Your task to perform on an android device: clear history in the chrome app Image 0: 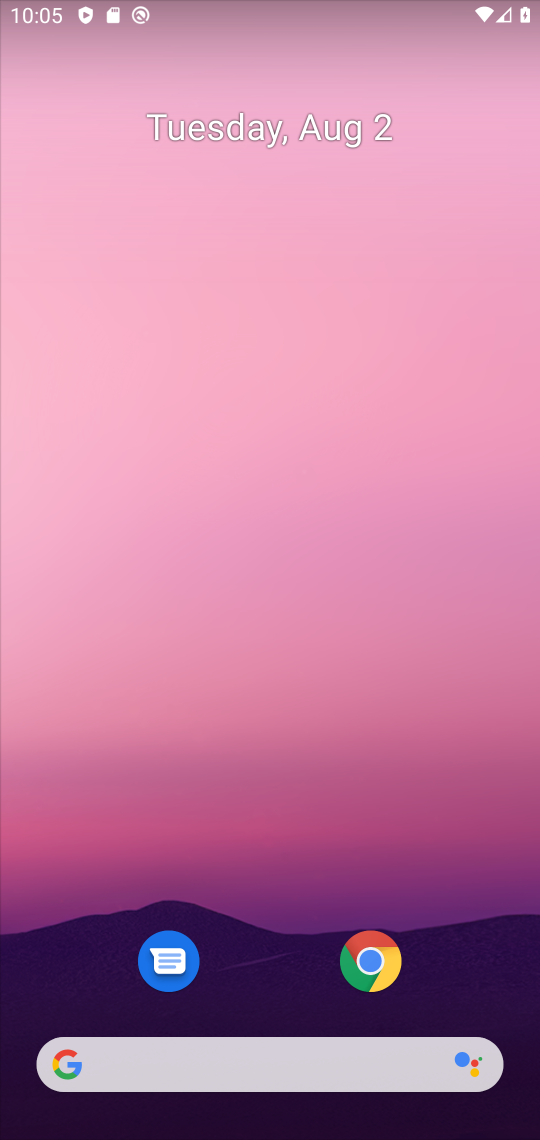
Step 0: click (367, 952)
Your task to perform on an android device: clear history in the chrome app Image 1: 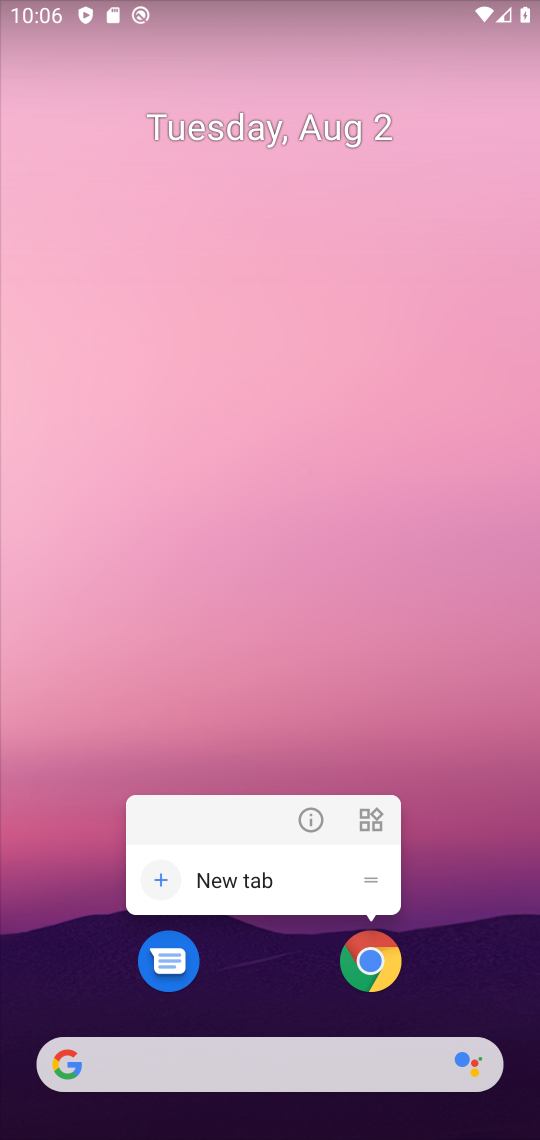
Step 1: click (361, 974)
Your task to perform on an android device: clear history in the chrome app Image 2: 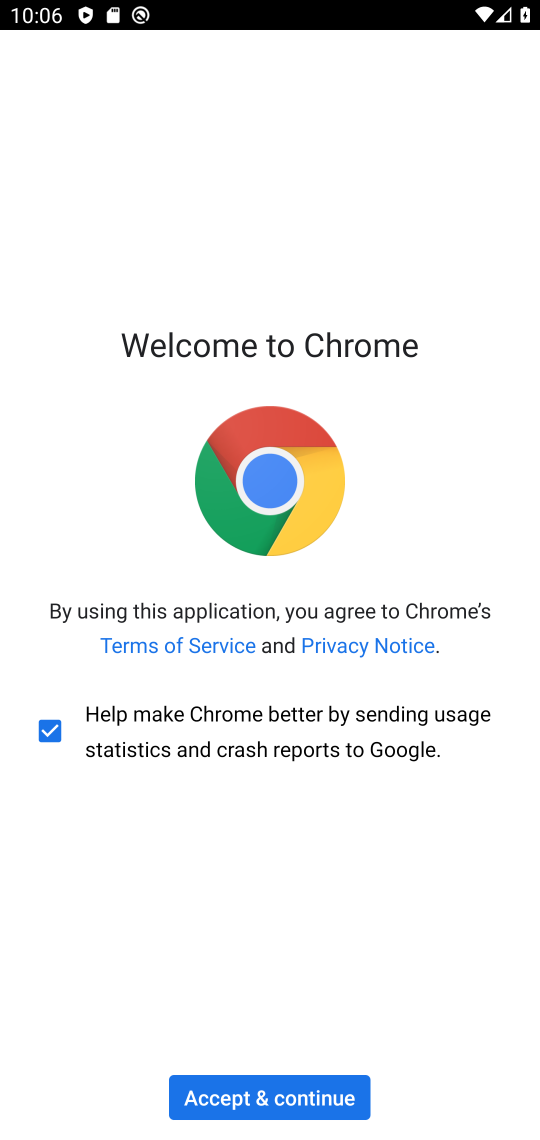
Step 2: click (253, 1086)
Your task to perform on an android device: clear history in the chrome app Image 3: 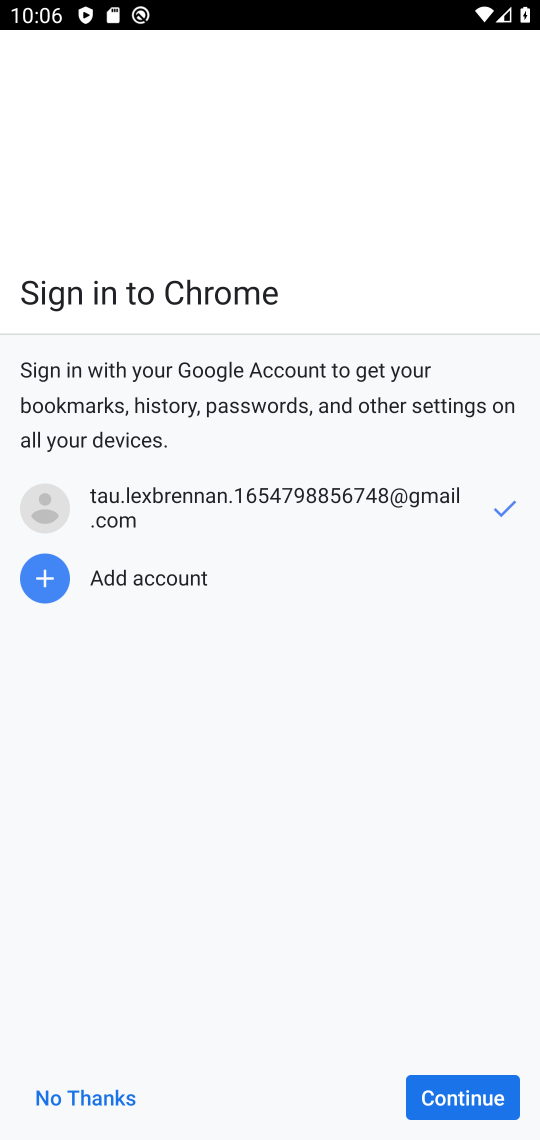
Step 3: click (465, 1090)
Your task to perform on an android device: clear history in the chrome app Image 4: 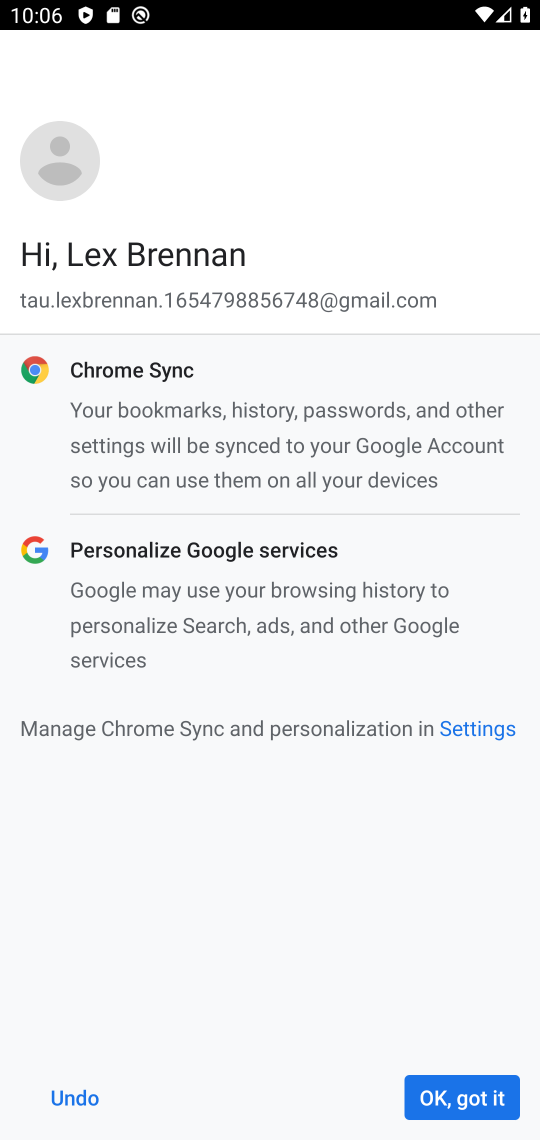
Step 4: click (464, 1085)
Your task to perform on an android device: clear history in the chrome app Image 5: 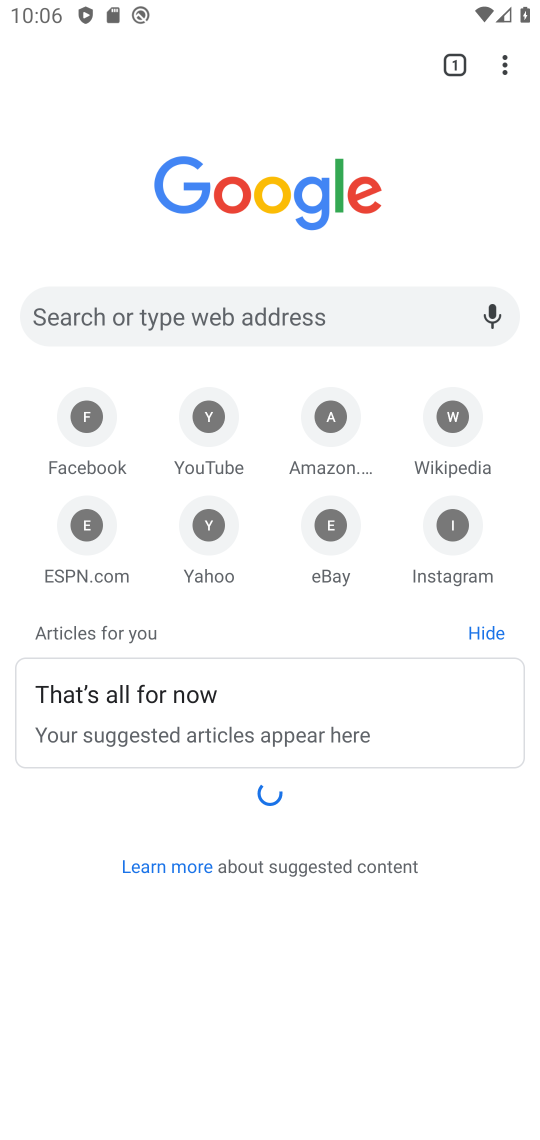
Step 5: click (503, 60)
Your task to perform on an android device: clear history in the chrome app Image 6: 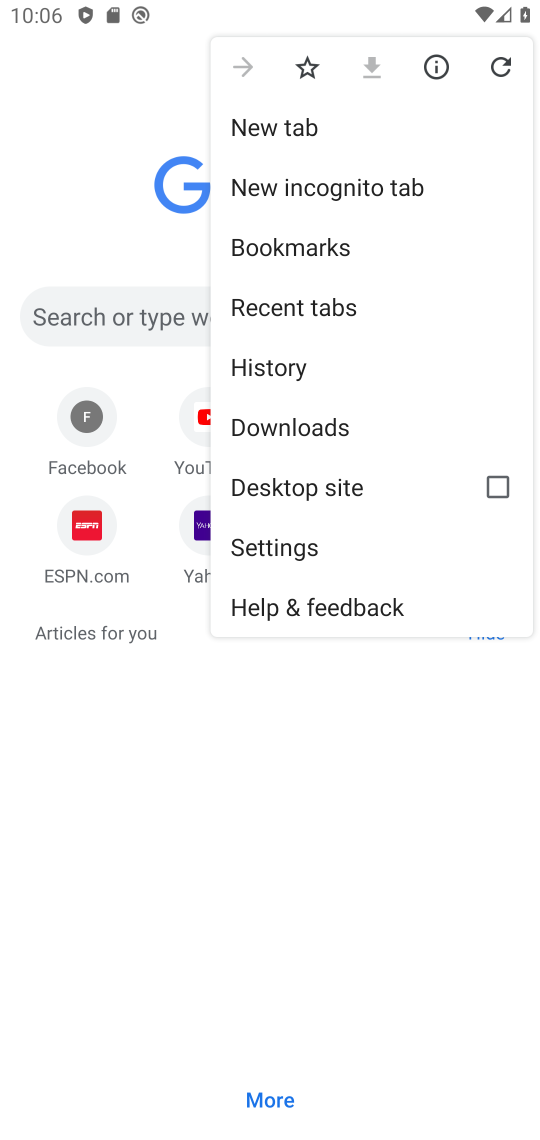
Step 6: click (316, 366)
Your task to perform on an android device: clear history in the chrome app Image 7: 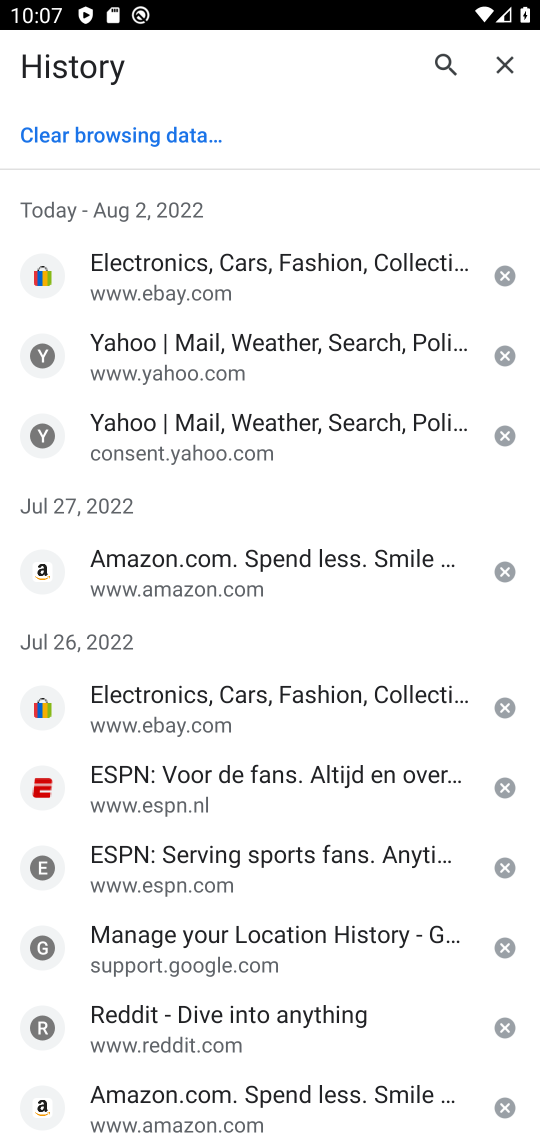
Step 7: click (83, 133)
Your task to perform on an android device: clear history in the chrome app Image 8: 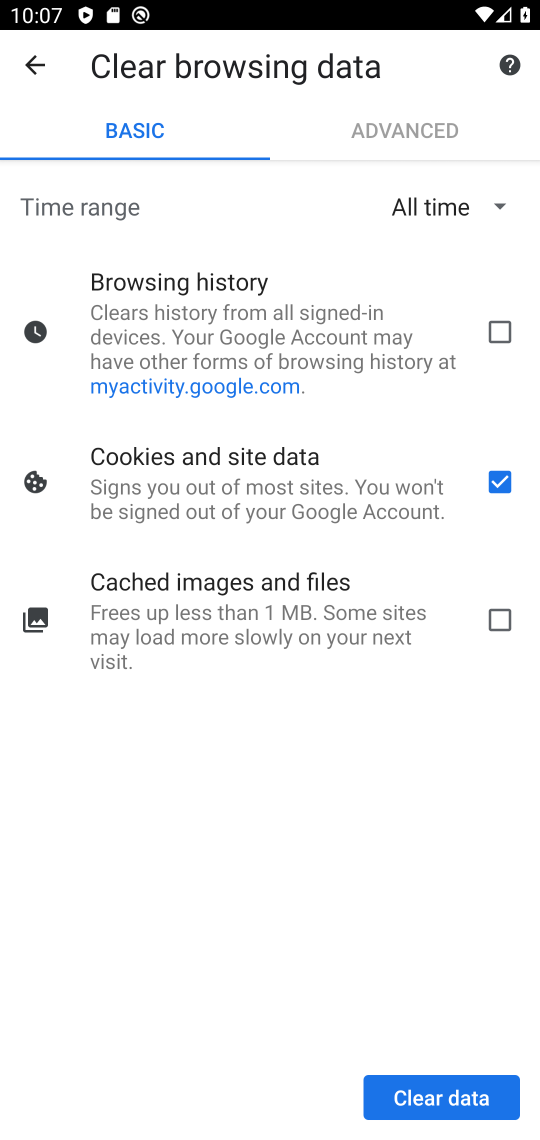
Step 8: click (495, 327)
Your task to perform on an android device: clear history in the chrome app Image 9: 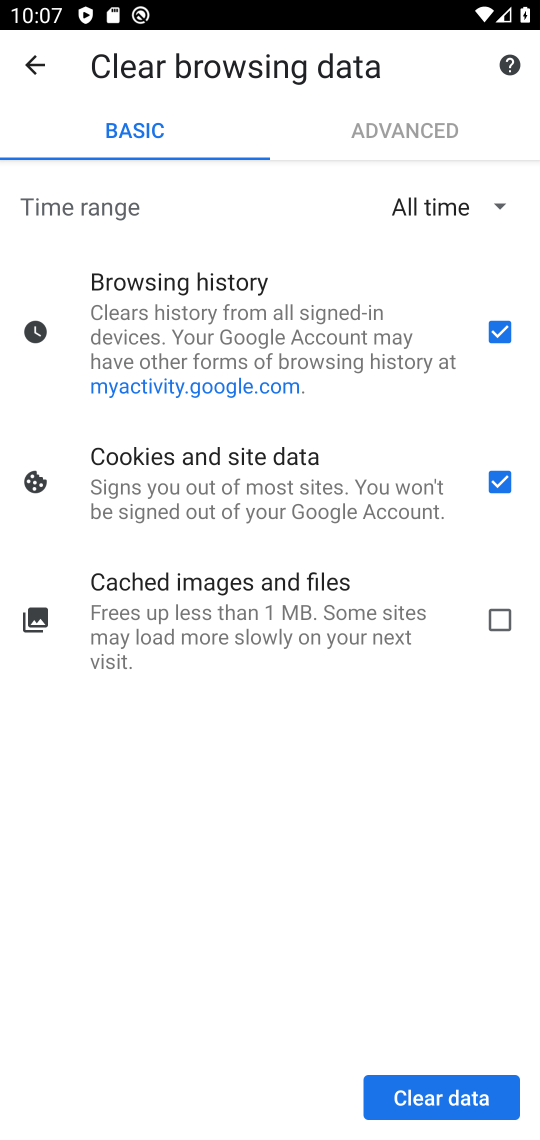
Step 9: click (499, 617)
Your task to perform on an android device: clear history in the chrome app Image 10: 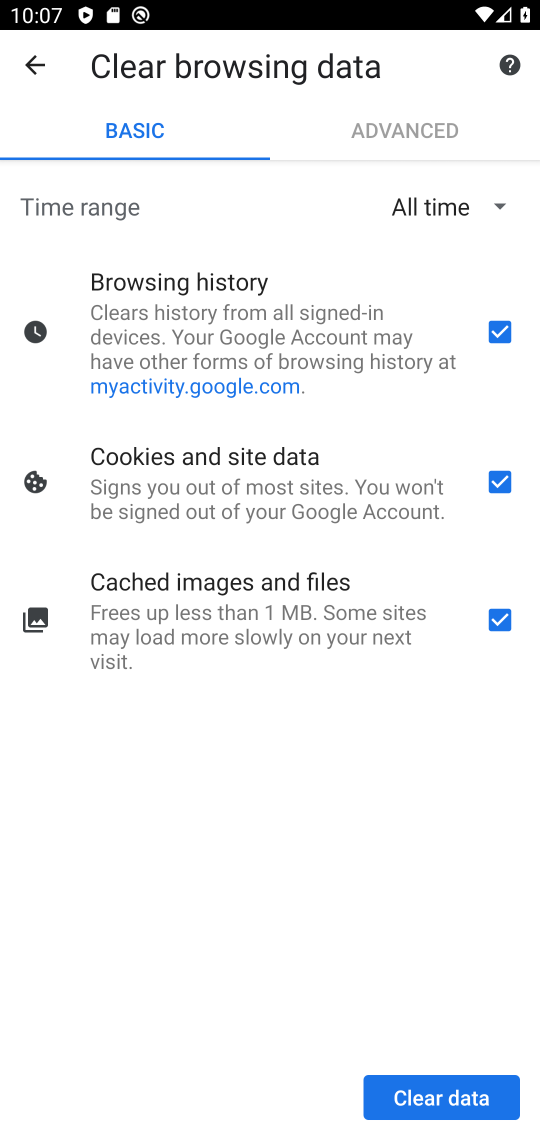
Step 10: click (442, 1092)
Your task to perform on an android device: clear history in the chrome app Image 11: 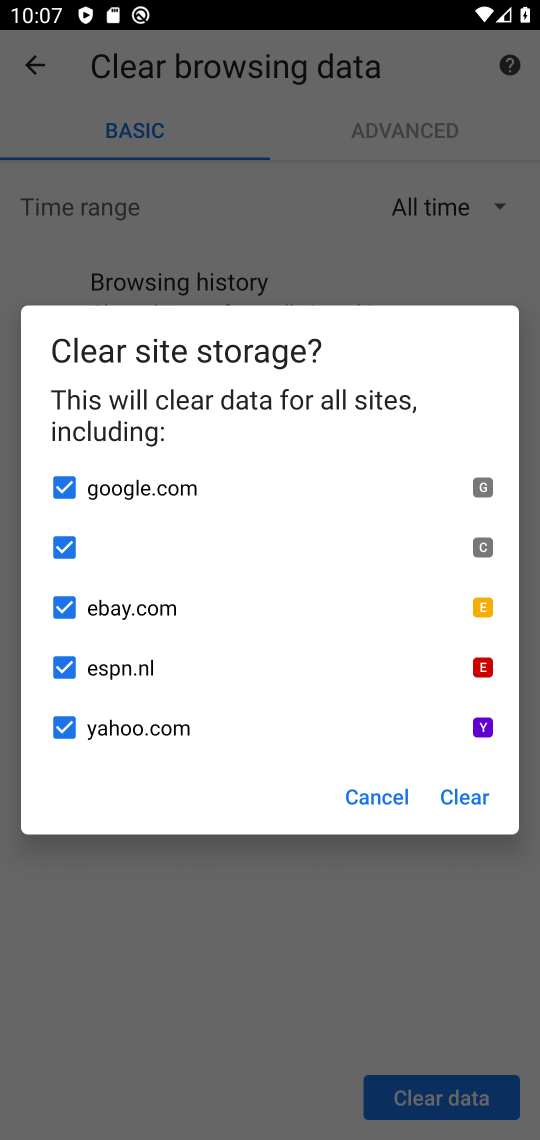
Step 11: click (475, 794)
Your task to perform on an android device: clear history in the chrome app Image 12: 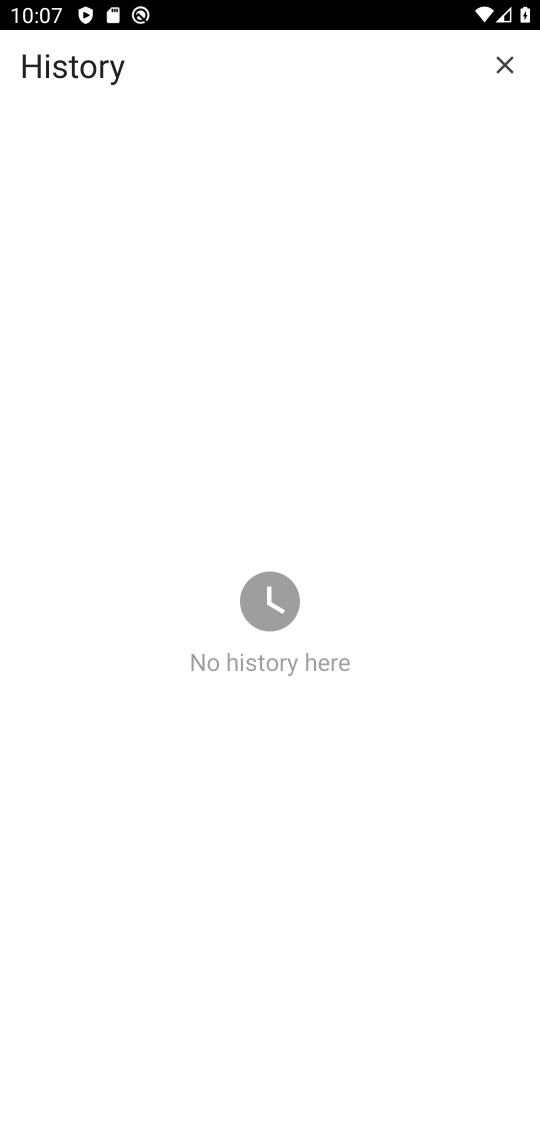
Step 12: task complete